Your task to perform on an android device: Go to Reddit.com Image 0: 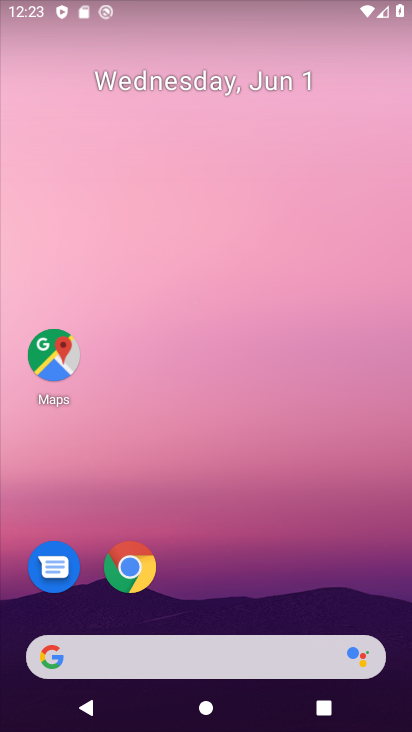
Step 0: drag from (255, 442) to (262, 53)
Your task to perform on an android device: Go to Reddit.com Image 1: 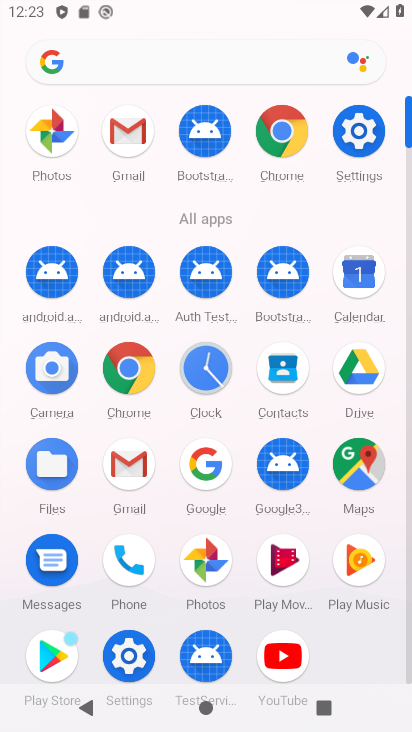
Step 1: click (209, 468)
Your task to perform on an android device: Go to Reddit.com Image 2: 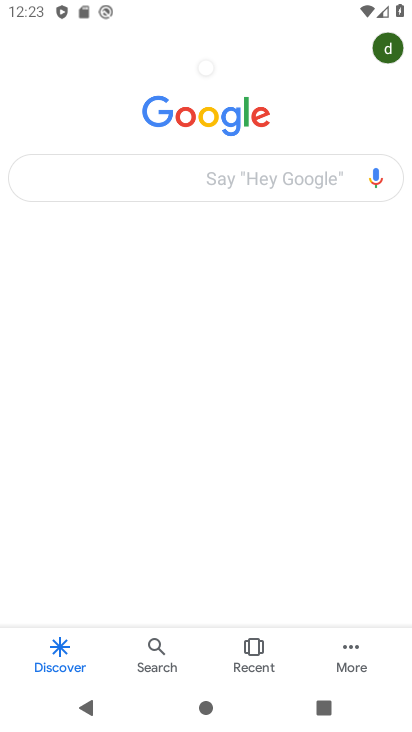
Step 2: click (206, 181)
Your task to perform on an android device: Go to Reddit.com Image 3: 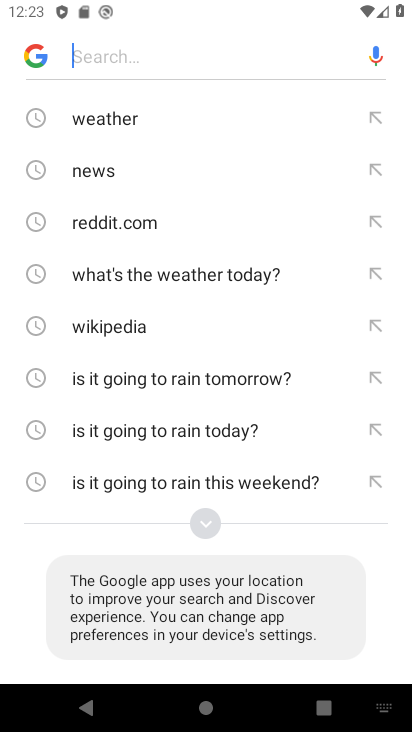
Step 3: click (150, 232)
Your task to perform on an android device: Go to Reddit.com Image 4: 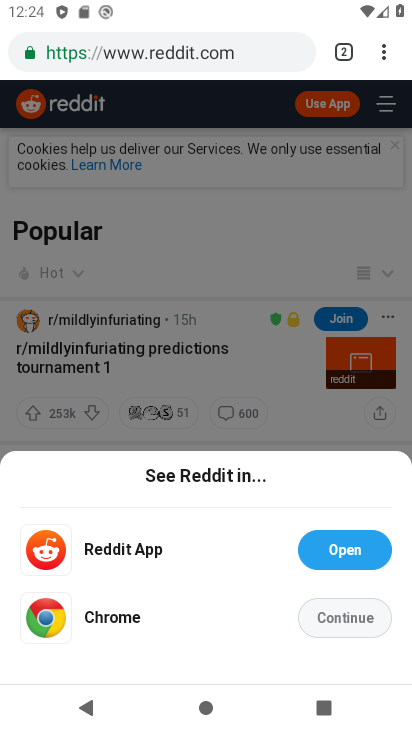
Step 4: task complete